Your task to perform on an android device: Open the Play Movies app and select the watchlist tab. Image 0: 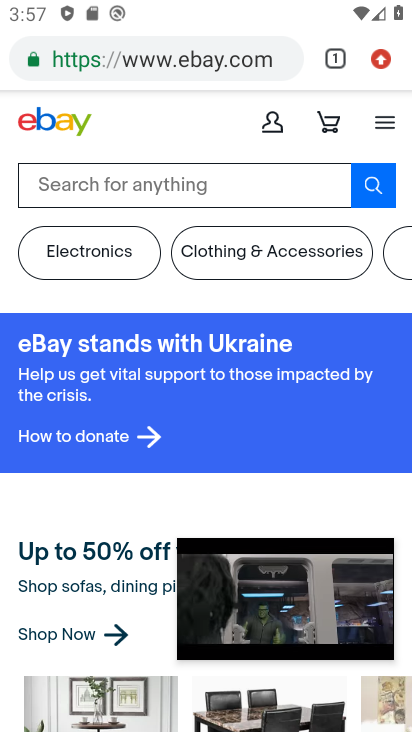
Step 0: click (323, 590)
Your task to perform on an android device: Open the Play Movies app and select the watchlist tab. Image 1: 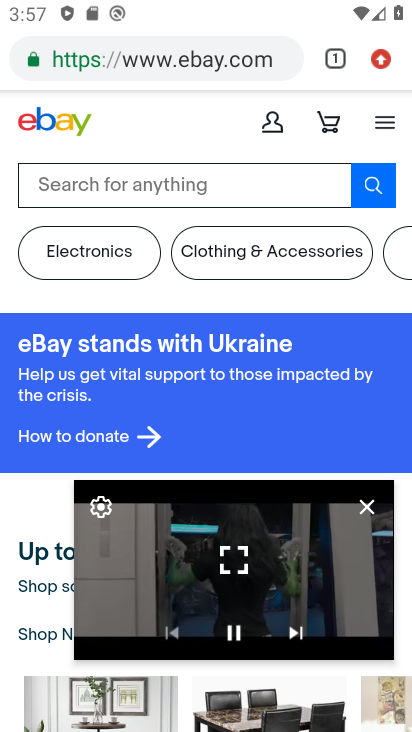
Step 1: click (364, 501)
Your task to perform on an android device: Open the Play Movies app and select the watchlist tab. Image 2: 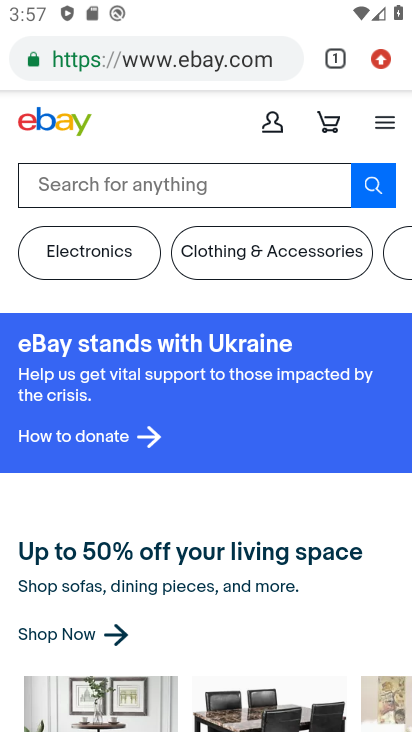
Step 2: press back button
Your task to perform on an android device: Open the Play Movies app and select the watchlist tab. Image 3: 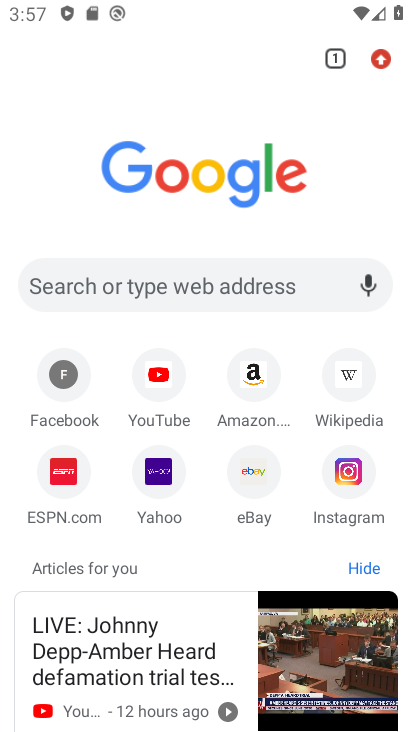
Step 3: press home button
Your task to perform on an android device: Open the Play Movies app and select the watchlist tab. Image 4: 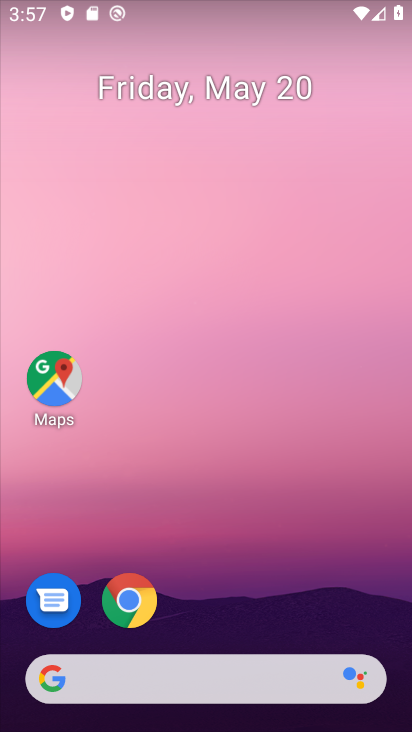
Step 4: drag from (279, 607) to (277, 58)
Your task to perform on an android device: Open the Play Movies app and select the watchlist tab. Image 5: 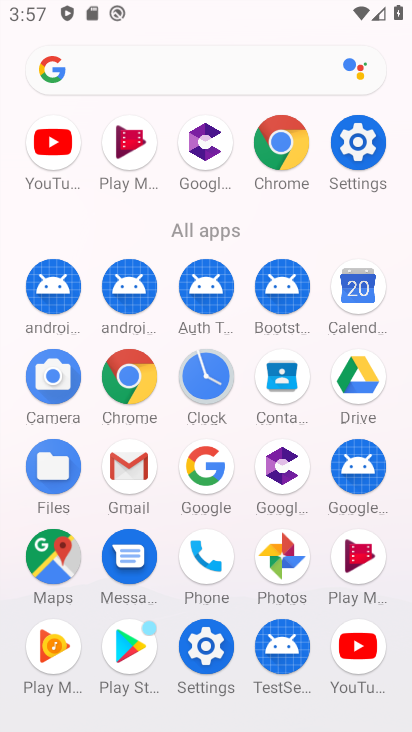
Step 5: drag from (3, 618) to (29, 379)
Your task to perform on an android device: Open the Play Movies app and select the watchlist tab. Image 6: 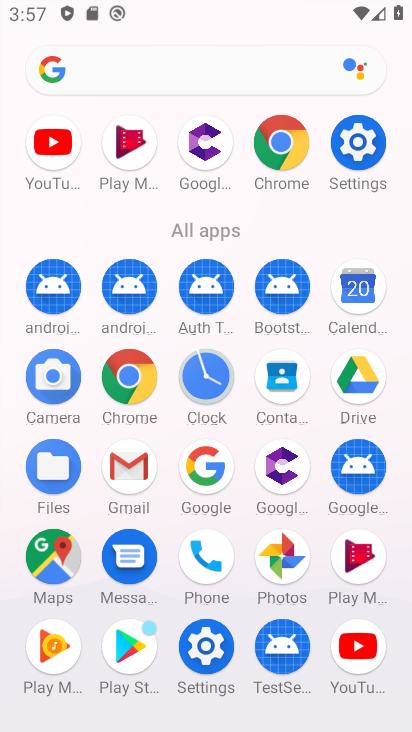
Step 6: click (353, 549)
Your task to perform on an android device: Open the Play Movies app and select the watchlist tab. Image 7: 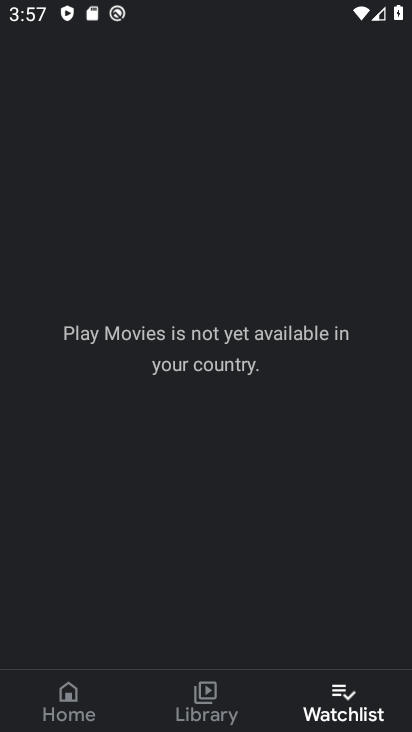
Step 7: task complete